Your task to perform on an android device: Open the Play Movies app and select the watchlist tab. Image 0: 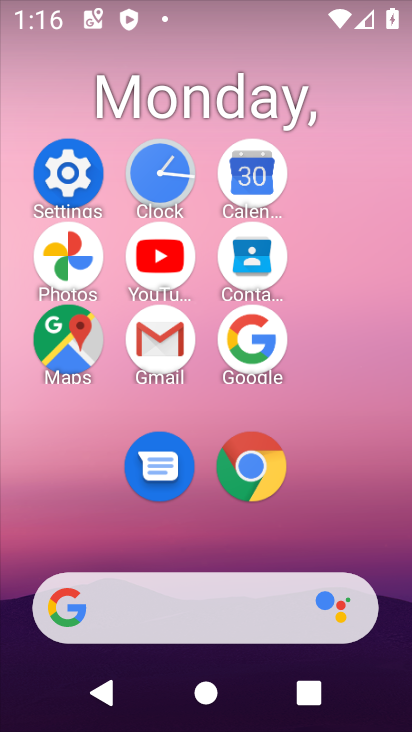
Step 0: drag from (348, 550) to (334, 64)
Your task to perform on an android device: Open the Play Movies app and select the watchlist tab. Image 1: 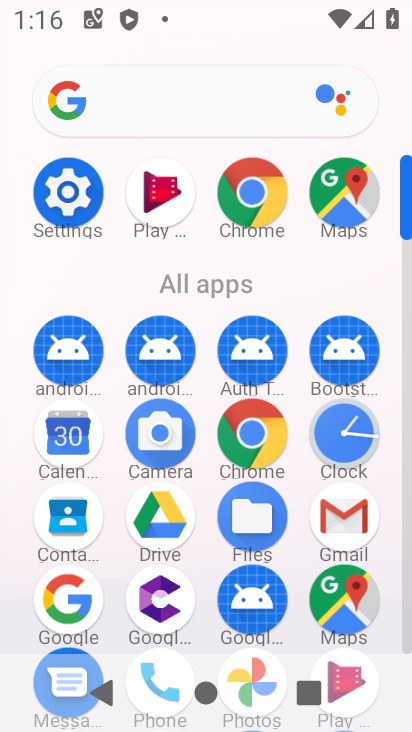
Step 1: drag from (310, 521) to (337, 108)
Your task to perform on an android device: Open the Play Movies app and select the watchlist tab. Image 2: 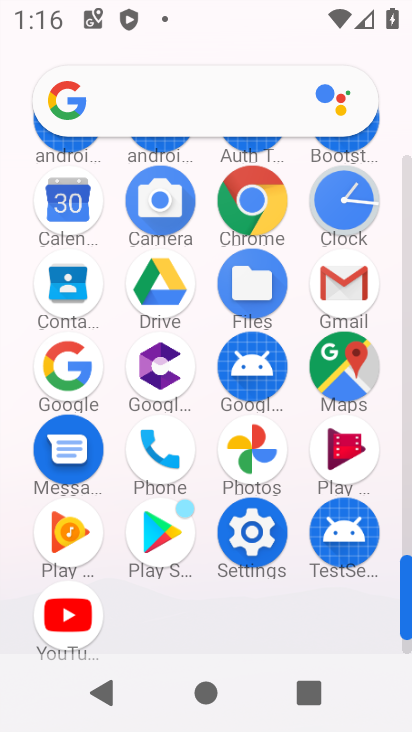
Step 2: click (343, 438)
Your task to perform on an android device: Open the Play Movies app and select the watchlist tab. Image 3: 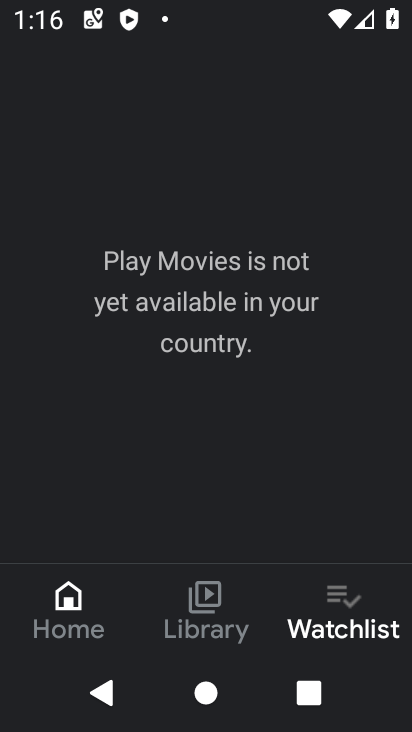
Step 3: click (322, 607)
Your task to perform on an android device: Open the Play Movies app and select the watchlist tab. Image 4: 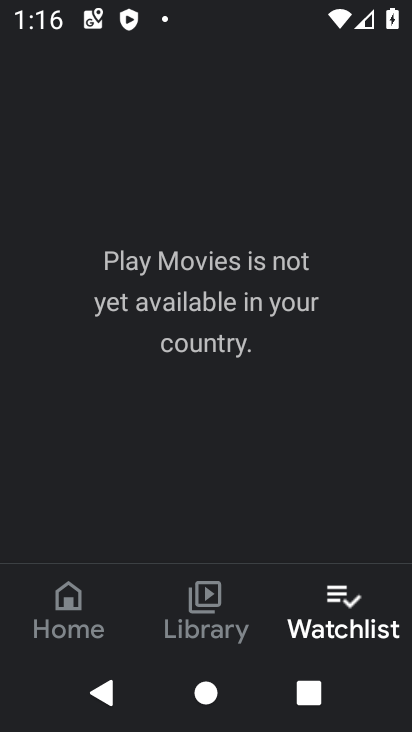
Step 4: task complete